Your task to perform on an android device: toggle priority inbox in the gmail app Image 0: 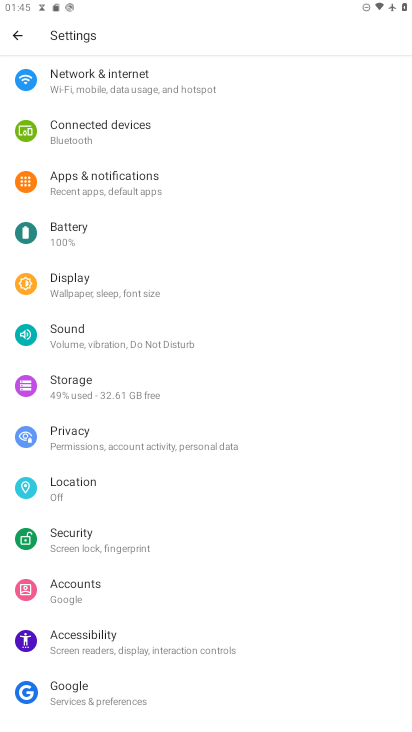
Step 0: press home button
Your task to perform on an android device: toggle priority inbox in the gmail app Image 1: 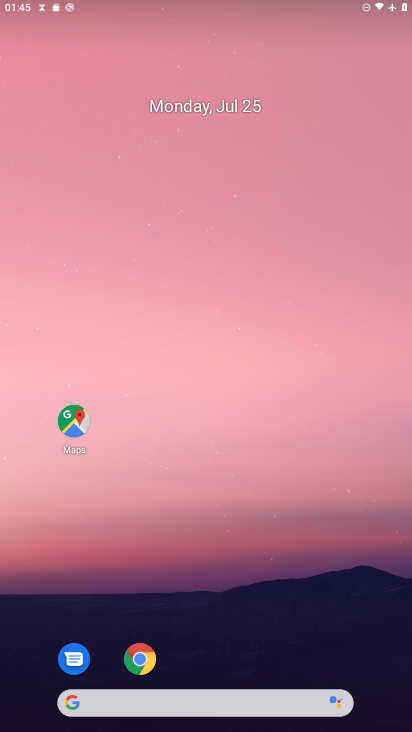
Step 1: drag from (135, 637) to (151, 219)
Your task to perform on an android device: toggle priority inbox in the gmail app Image 2: 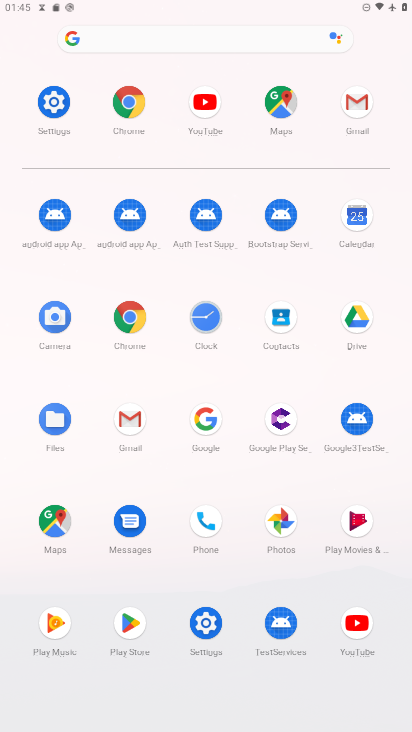
Step 2: click (351, 102)
Your task to perform on an android device: toggle priority inbox in the gmail app Image 3: 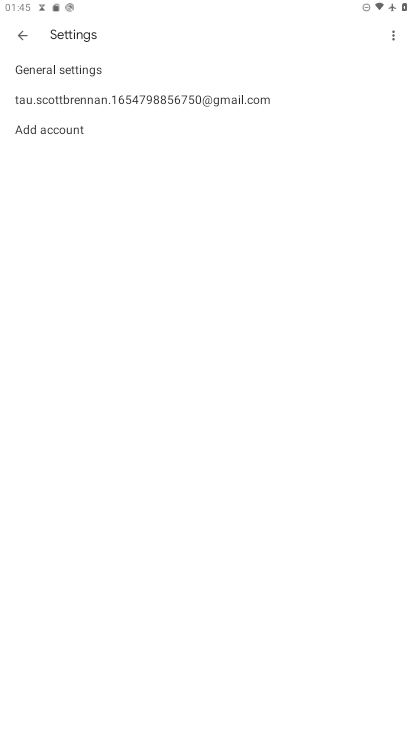
Step 3: click (22, 36)
Your task to perform on an android device: toggle priority inbox in the gmail app Image 4: 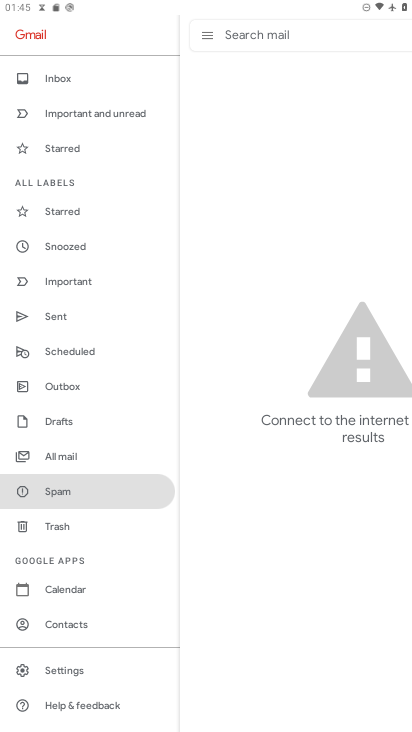
Step 4: click (47, 673)
Your task to perform on an android device: toggle priority inbox in the gmail app Image 5: 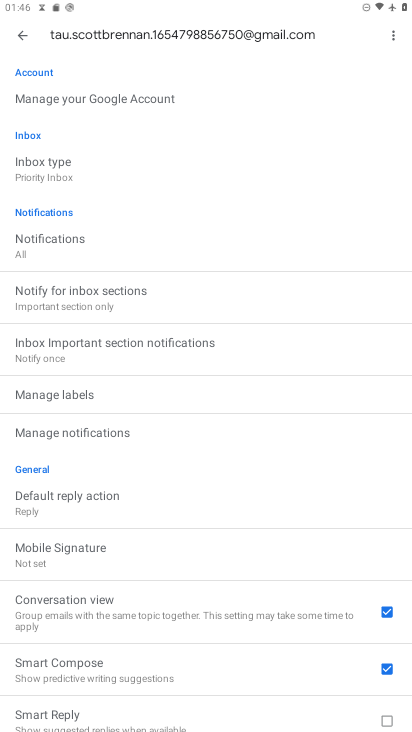
Step 5: click (51, 159)
Your task to perform on an android device: toggle priority inbox in the gmail app Image 6: 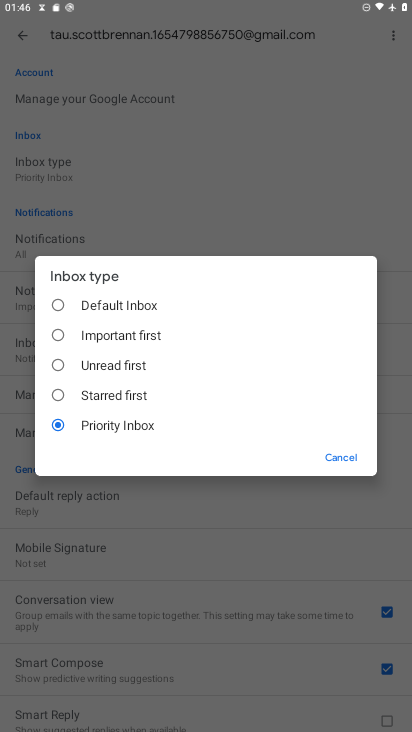
Step 6: click (108, 295)
Your task to perform on an android device: toggle priority inbox in the gmail app Image 7: 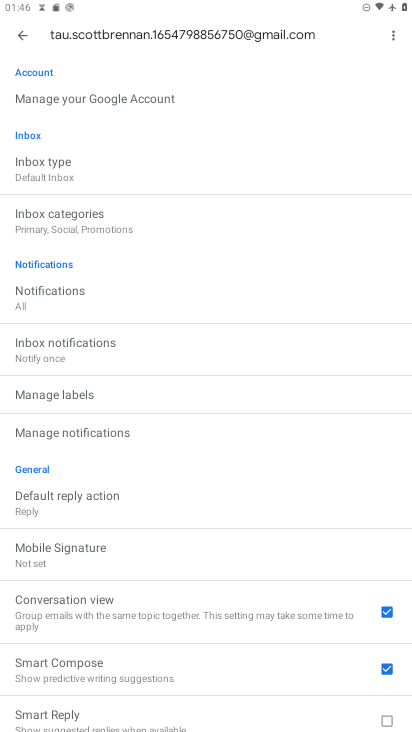
Step 7: task complete